Your task to perform on an android device: Go to Wikipedia Image 0: 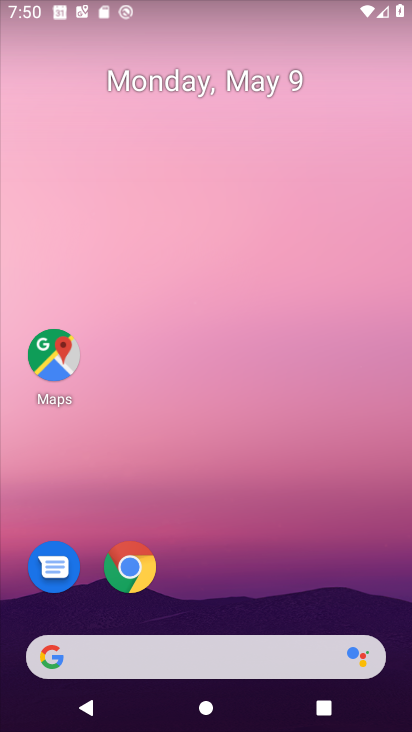
Step 0: click (121, 561)
Your task to perform on an android device: Go to Wikipedia Image 1: 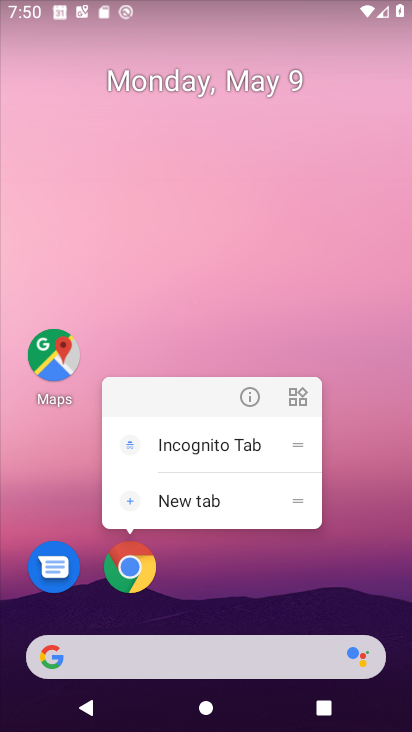
Step 1: click (121, 561)
Your task to perform on an android device: Go to Wikipedia Image 2: 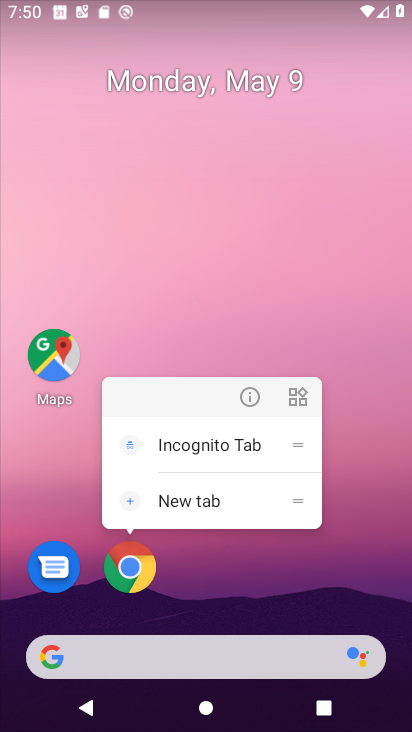
Step 2: click (121, 561)
Your task to perform on an android device: Go to Wikipedia Image 3: 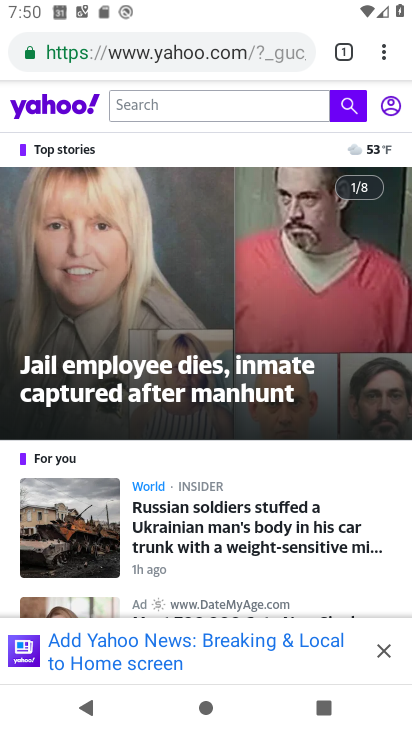
Step 3: click (155, 50)
Your task to perform on an android device: Go to Wikipedia Image 4: 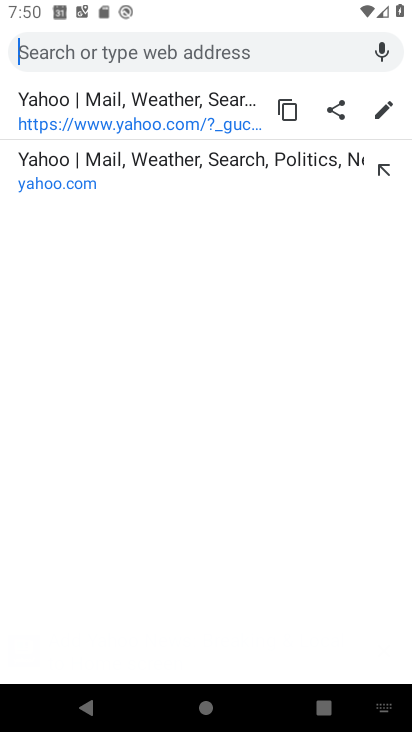
Step 4: type "wikipedia"
Your task to perform on an android device: Go to Wikipedia Image 5: 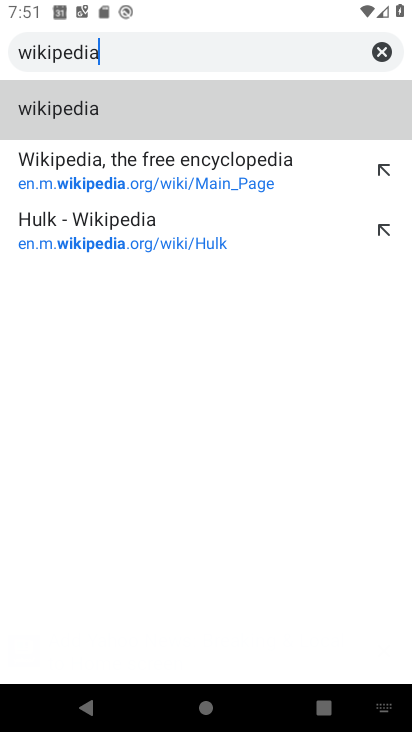
Step 5: click (80, 107)
Your task to perform on an android device: Go to Wikipedia Image 6: 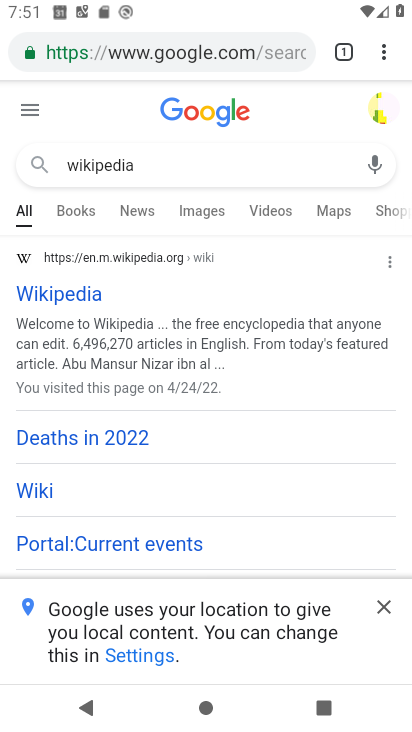
Step 6: click (46, 298)
Your task to perform on an android device: Go to Wikipedia Image 7: 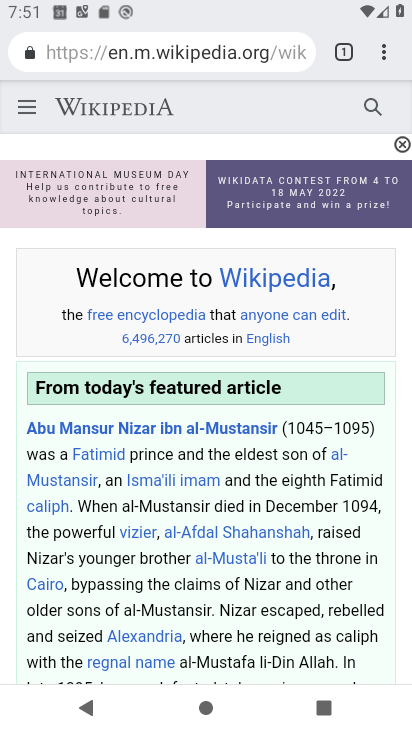
Step 7: task complete